Your task to perform on an android device: Go to notification settings Image 0: 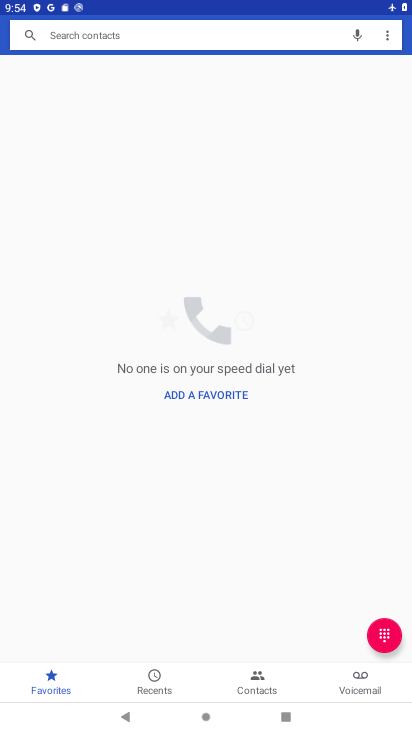
Step 0: press home button
Your task to perform on an android device: Go to notification settings Image 1: 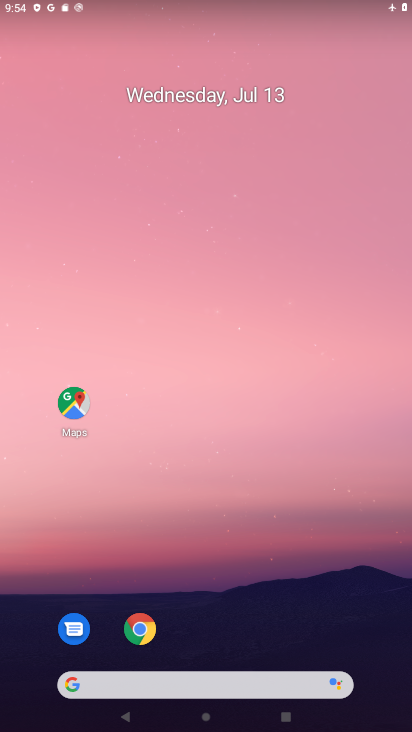
Step 1: drag from (230, 636) to (212, 110)
Your task to perform on an android device: Go to notification settings Image 2: 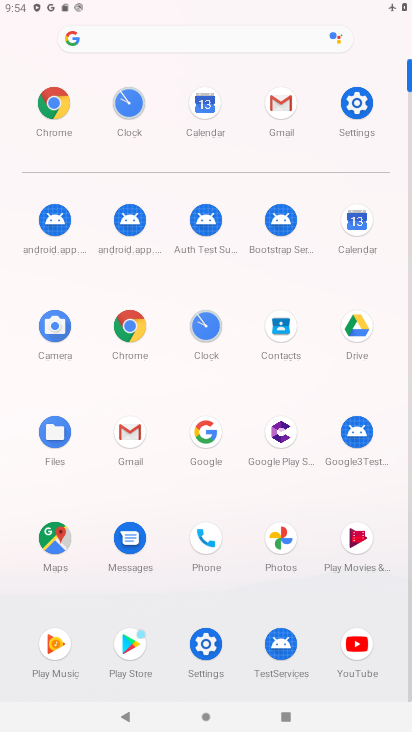
Step 2: click (216, 642)
Your task to perform on an android device: Go to notification settings Image 3: 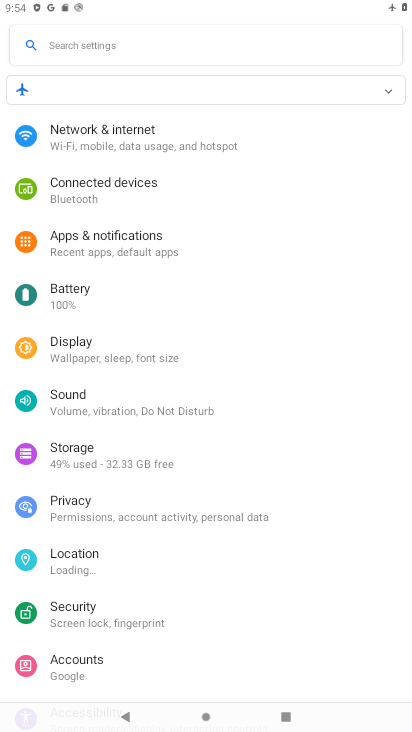
Step 3: click (214, 257)
Your task to perform on an android device: Go to notification settings Image 4: 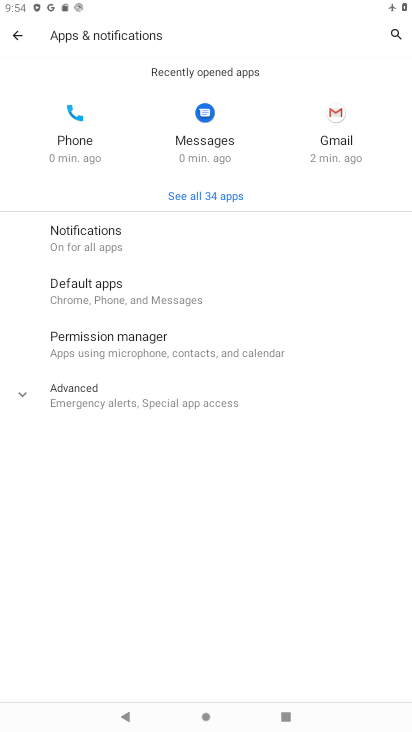
Step 4: click (176, 407)
Your task to perform on an android device: Go to notification settings Image 5: 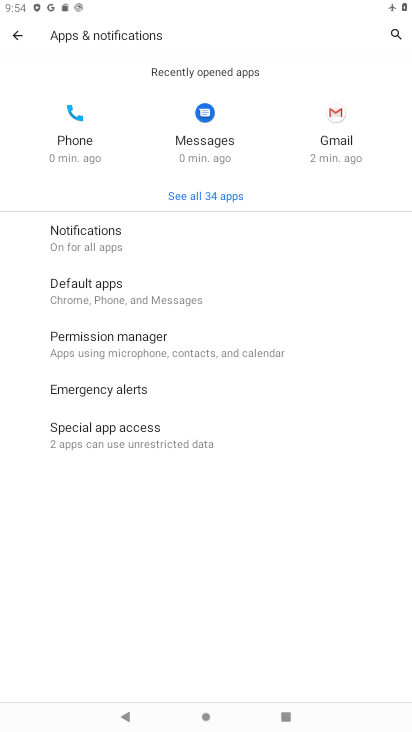
Step 5: click (175, 250)
Your task to perform on an android device: Go to notification settings Image 6: 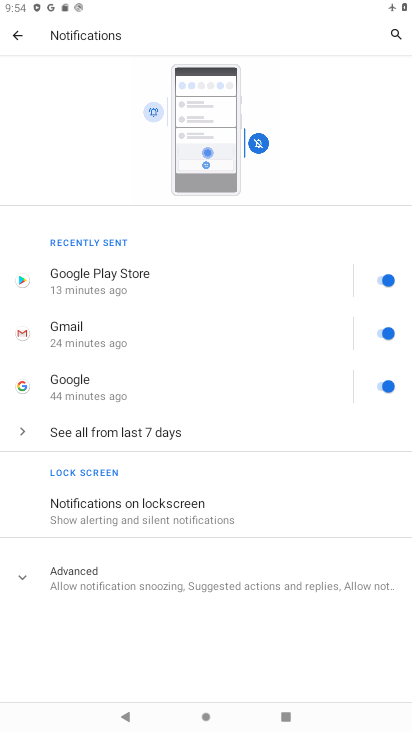
Step 6: task complete